Your task to perform on an android device: Do I have any events today? Image 0: 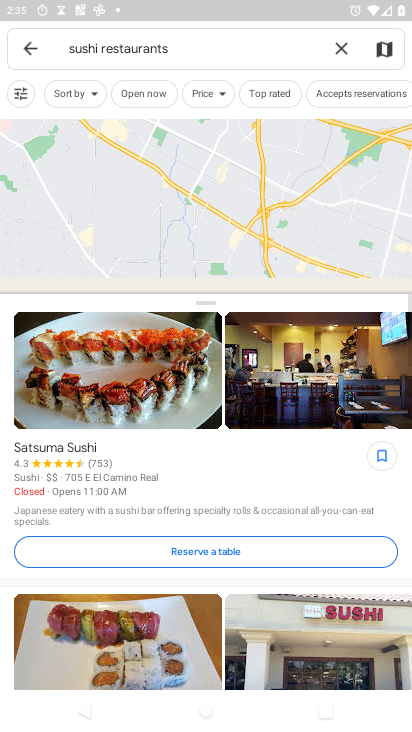
Step 0: press home button
Your task to perform on an android device: Do I have any events today? Image 1: 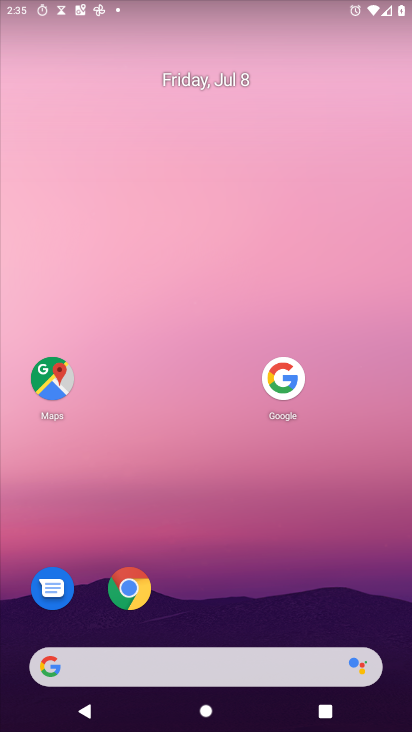
Step 1: drag from (197, 667) to (284, 88)
Your task to perform on an android device: Do I have any events today? Image 2: 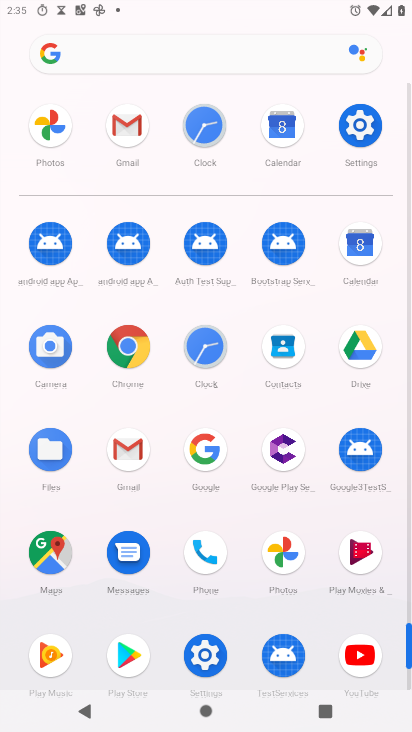
Step 2: click (362, 244)
Your task to perform on an android device: Do I have any events today? Image 3: 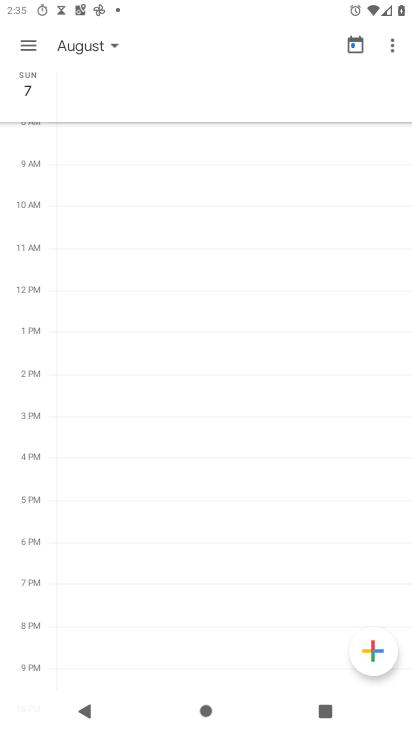
Step 3: click (83, 43)
Your task to perform on an android device: Do I have any events today? Image 4: 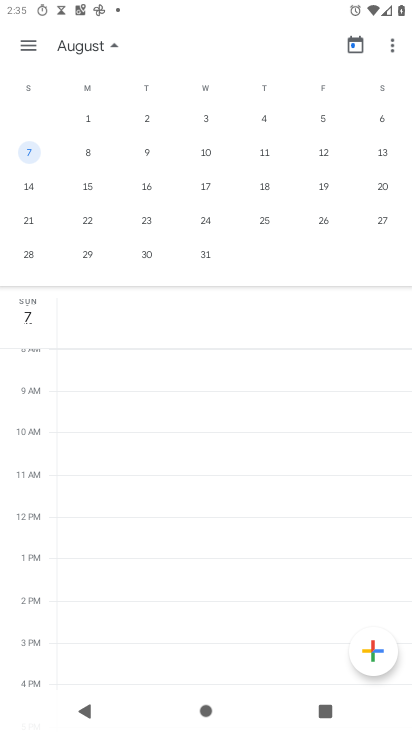
Step 4: drag from (82, 176) to (357, 203)
Your task to perform on an android device: Do I have any events today? Image 5: 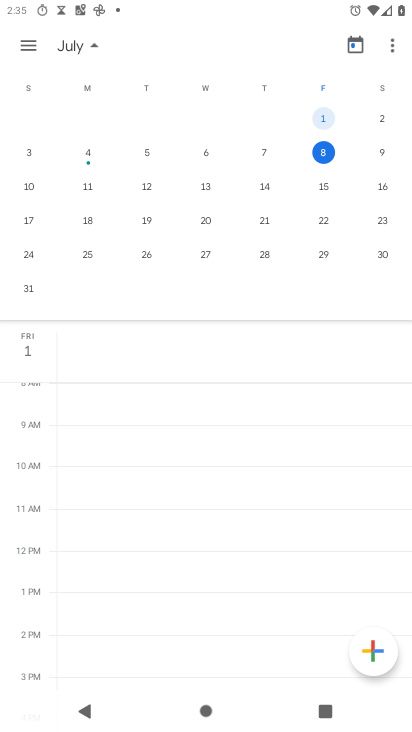
Step 5: click (324, 156)
Your task to perform on an android device: Do I have any events today? Image 6: 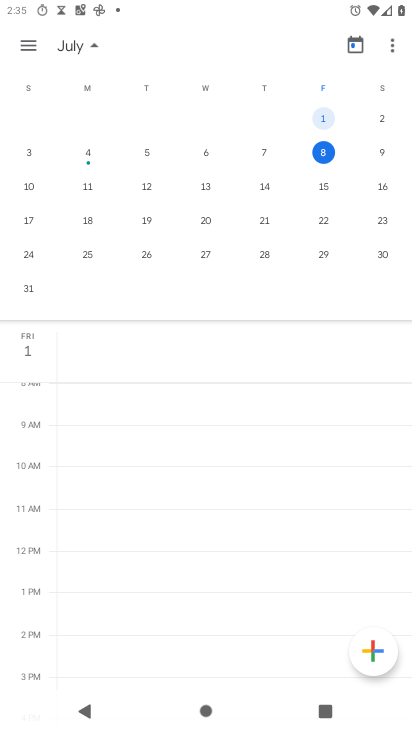
Step 6: click (322, 155)
Your task to perform on an android device: Do I have any events today? Image 7: 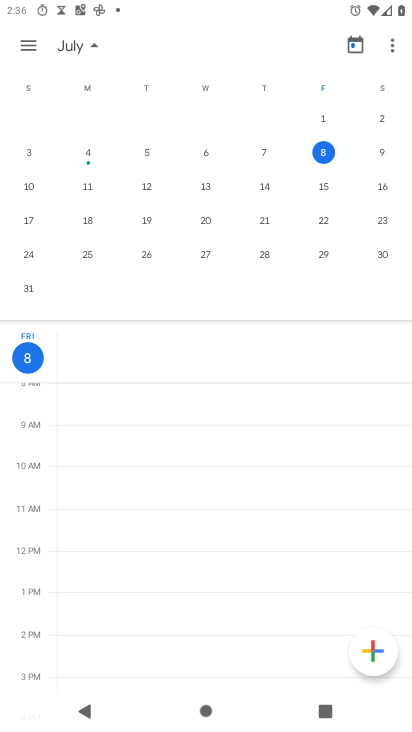
Step 7: click (25, 39)
Your task to perform on an android device: Do I have any events today? Image 8: 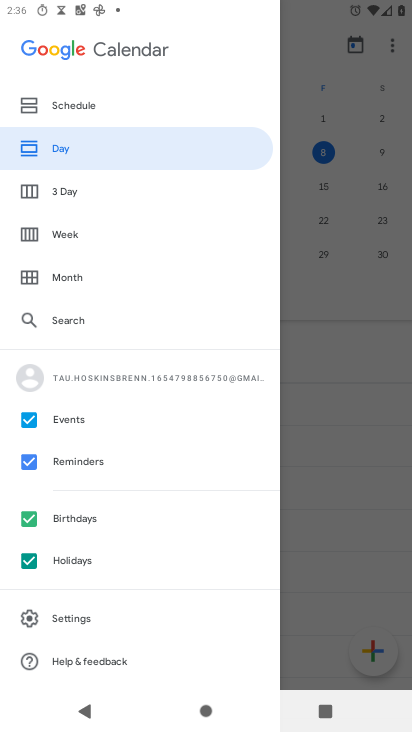
Step 8: click (70, 103)
Your task to perform on an android device: Do I have any events today? Image 9: 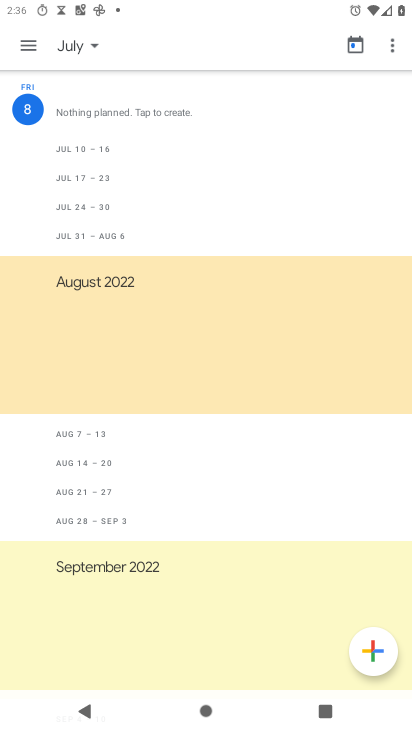
Step 9: task complete